Your task to perform on an android device: change text size in settings app Image 0: 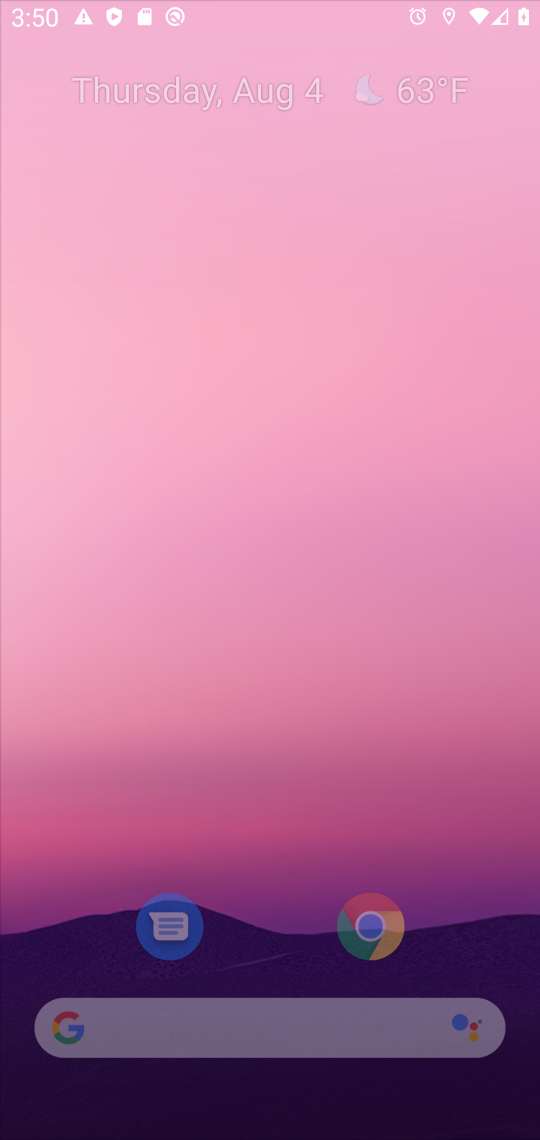
Step 0: press home button
Your task to perform on an android device: change text size in settings app Image 1: 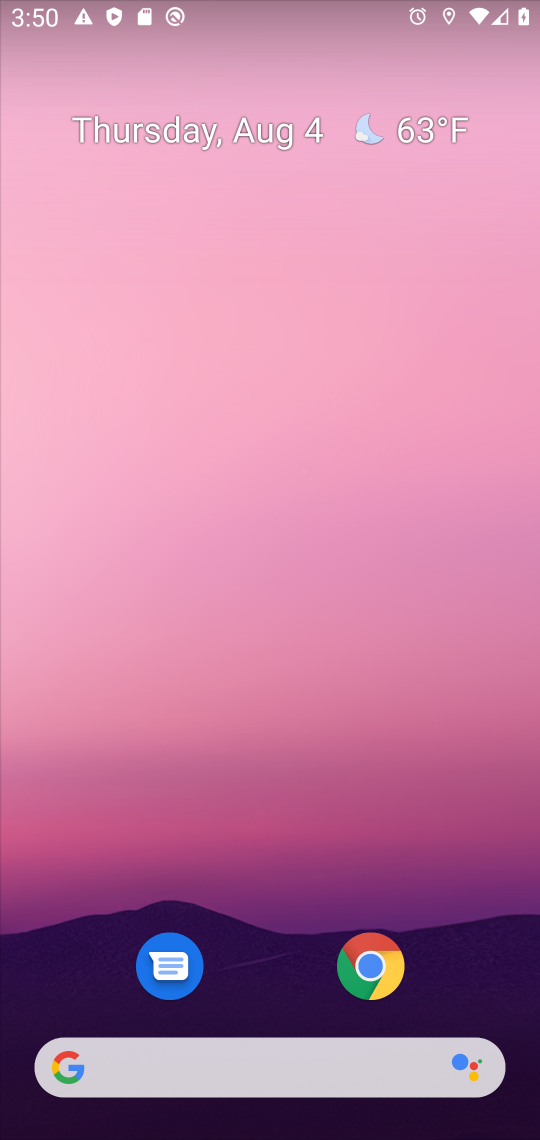
Step 1: drag from (259, 993) to (290, 43)
Your task to perform on an android device: change text size in settings app Image 2: 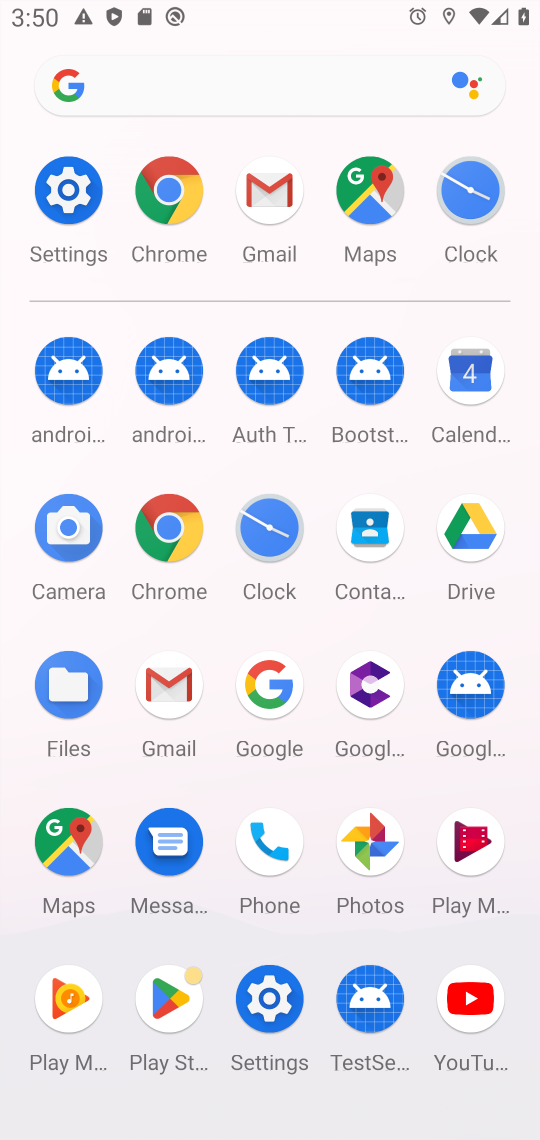
Step 2: click (55, 199)
Your task to perform on an android device: change text size in settings app Image 3: 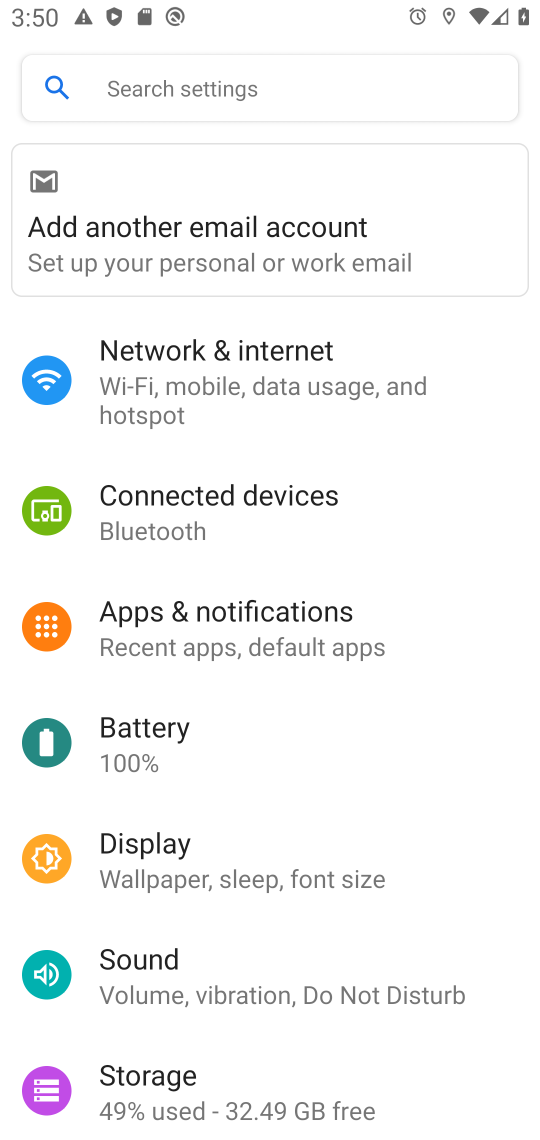
Step 3: click (154, 865)
Your task to perform on an android device: change text size in settings app Image 4: 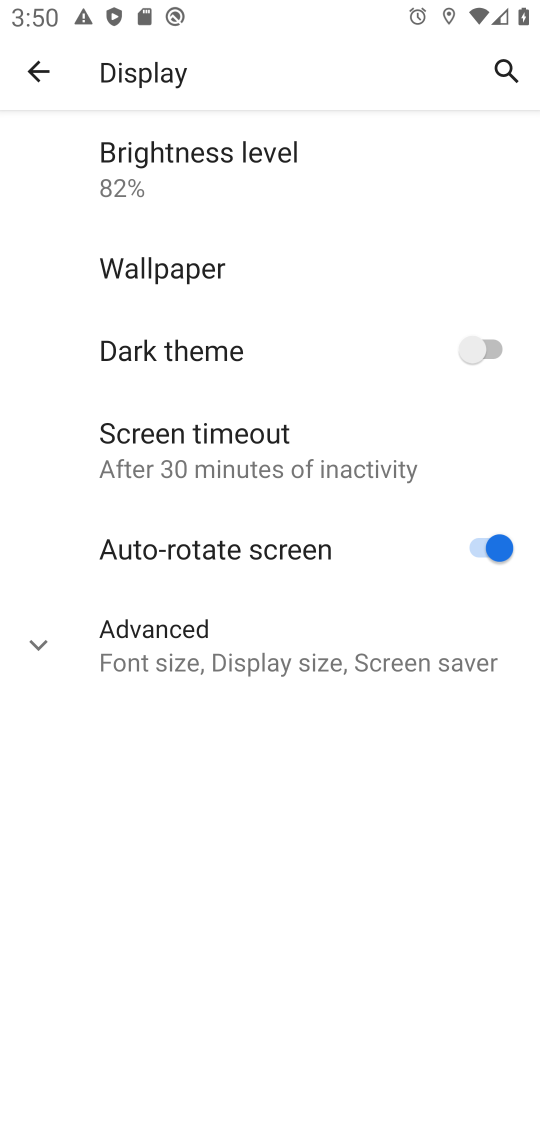
Step 4: click (134, 665)
Your task to perform on an android device: change text size in settings app Image 5: 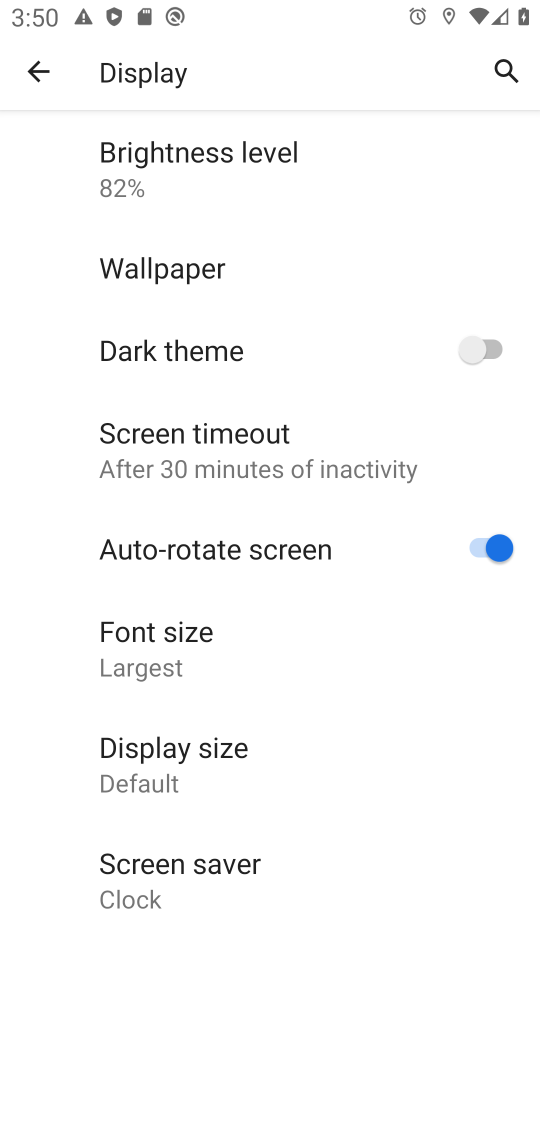
Step 5: click (153, 652)
Your task to perform on an android device: change text size in settings app Image 6: 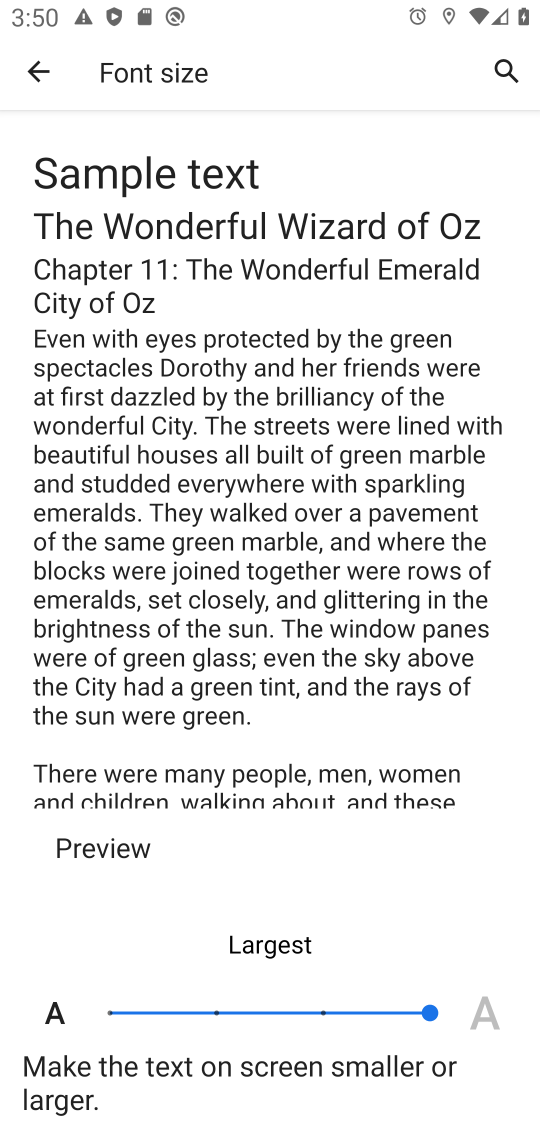
Step 6: click (355, 1014)
Your task to perform on an android device: change text size in settings app Image 7: 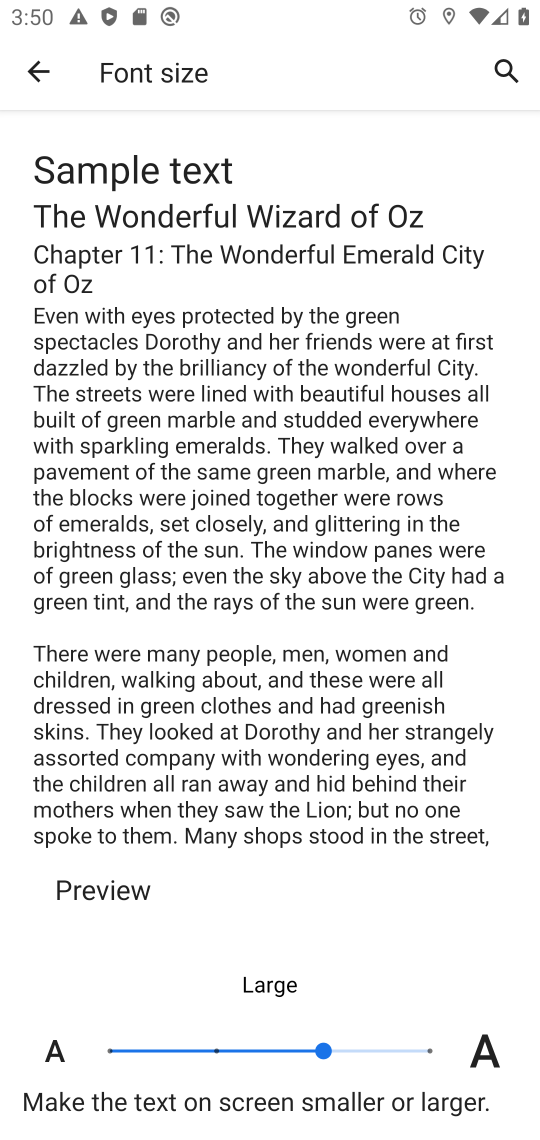
Step 7: task complete